Your task to perform on an android device: turn on showing notifications on the lock screen Image 0: 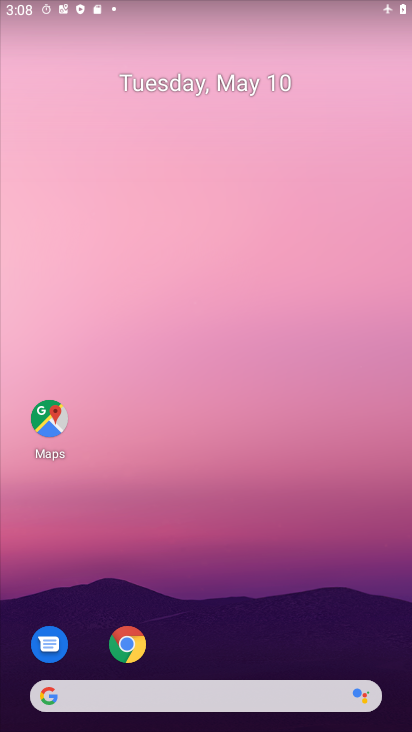
Step 0: drag from (274, 371) to (275, 183)
Your task to perform on an android device: turn on showing notifications on the lock screen Image 1: 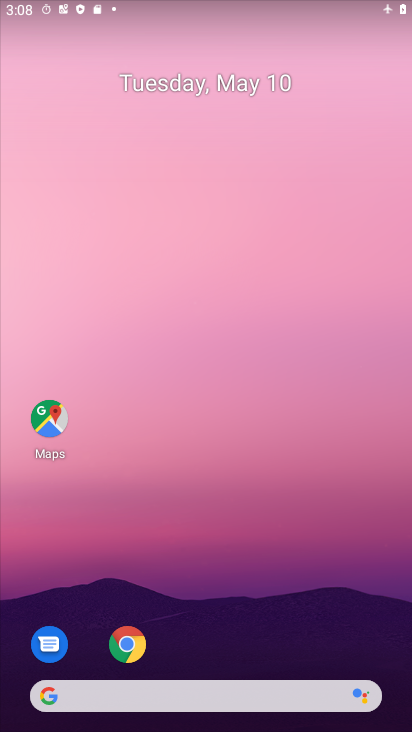
Step 1: drag from (199, 632) to (250, 151)
Your task to perform on an android device: turn on showing notifications on the lock screen Image 2: 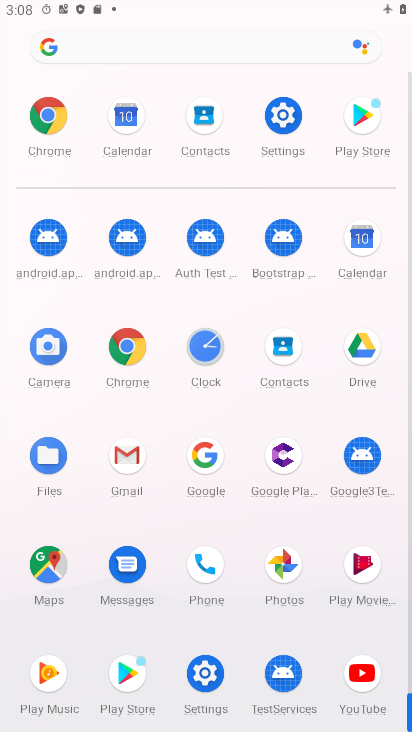
Step 2: click (296, 120)
Your task to perform on an android device: turn on showing notifications on the lock screen Image 3: 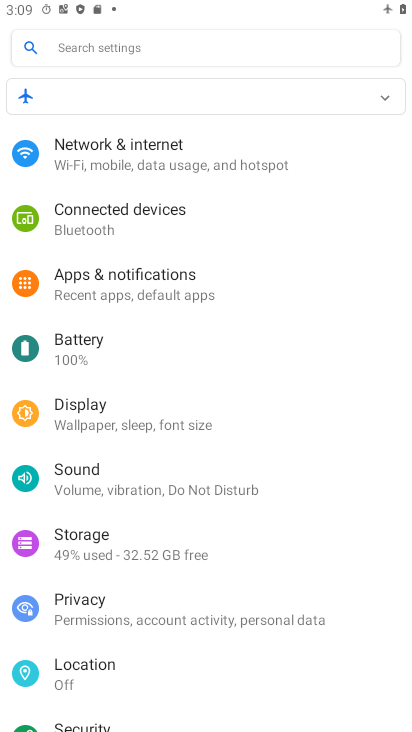
Step 3: click (184, 303)
Your task to perform on an android device: turn on showing notifications on the lock screen Image 4: 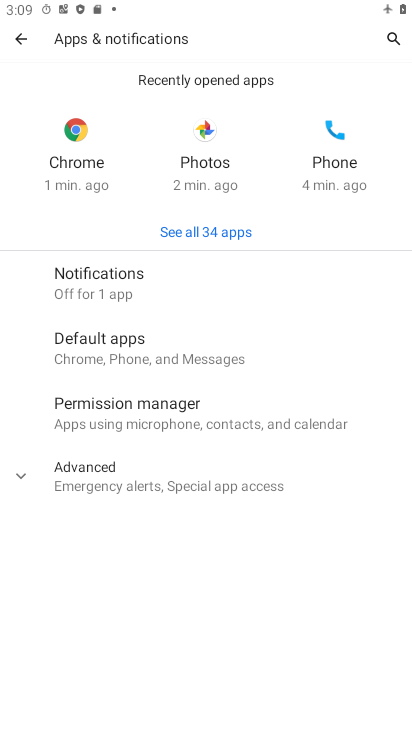
Step 4: click (169, 298)
Your task to perform on an android device: turn on showing notifications on the lock screen Image 5: 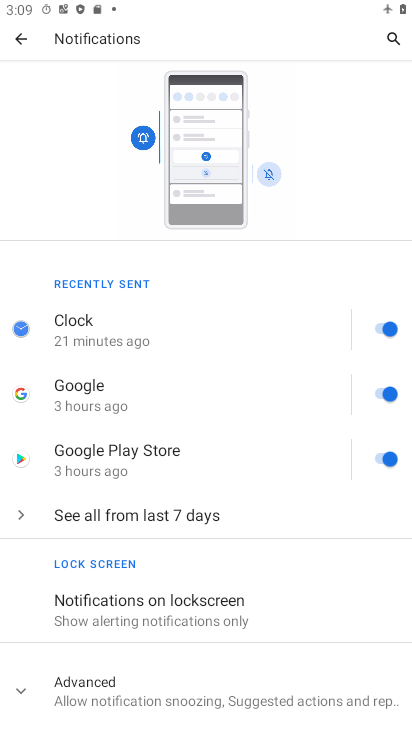
Step 5: click (125, 601)
Your task to perform on an android device: turn on showing notifications on the lock screen Image 6: 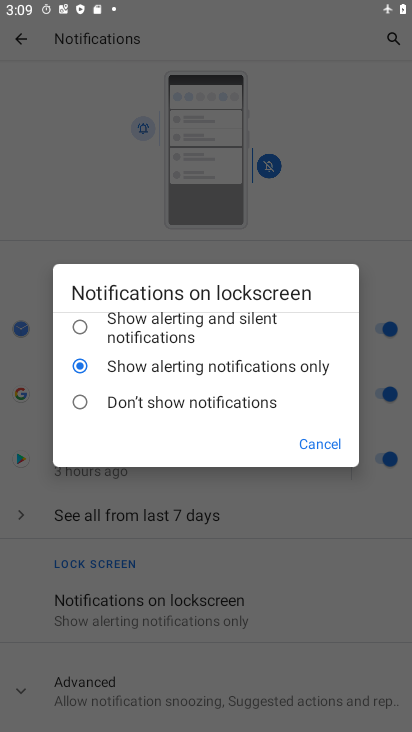
Step 6: click (219, 330)
Your task to perform on an android device: turn on showing notifications on the lock screen Image 7: 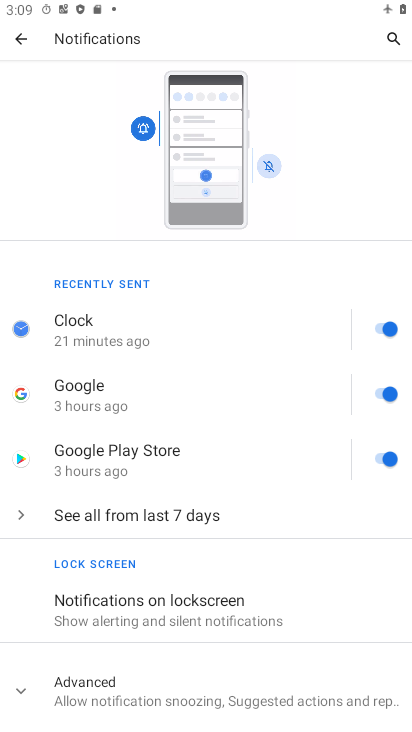
Step 7: task complete